Your task to perform on an android device: Show me the alarms in the clock app Image 0: 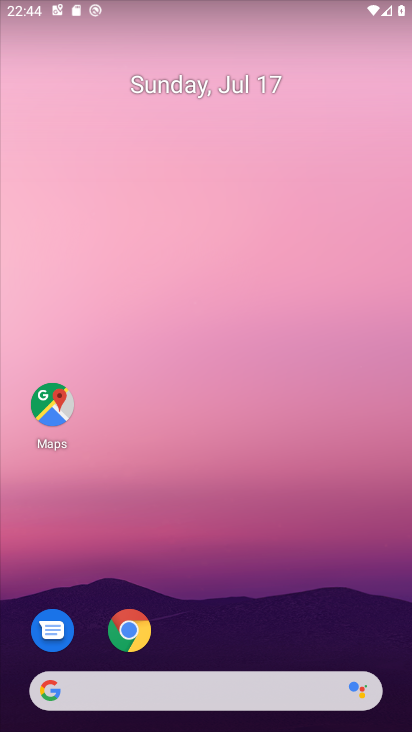
Step 0: drag from (207, 634) to (215, 89)
Your task to perform on an android device: Show me the alarms in the clock app Image 1: 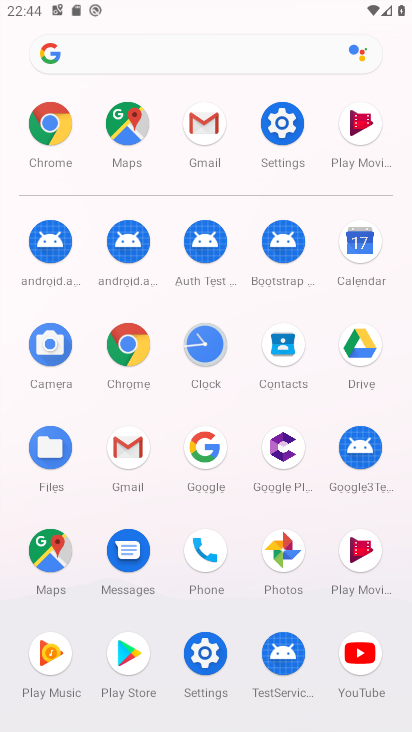
Step 1: click (207, 360)
Your task to perform on an android device: Show me the alarms in the clock app Image 2: 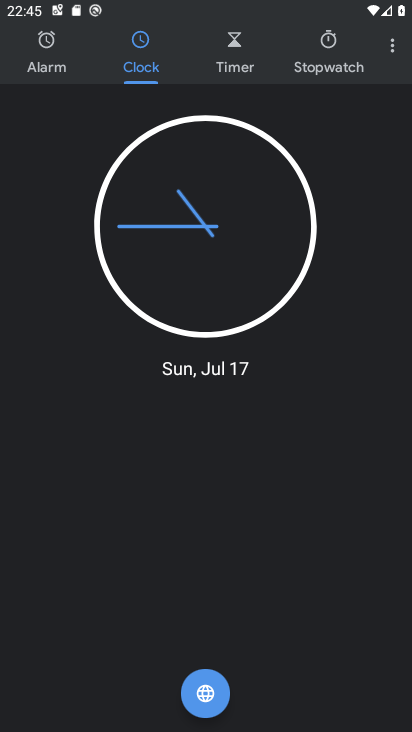
Step 2: click (41, 62)
Your task to perform on an android device: Show me the alarms in the clock app Image 3: 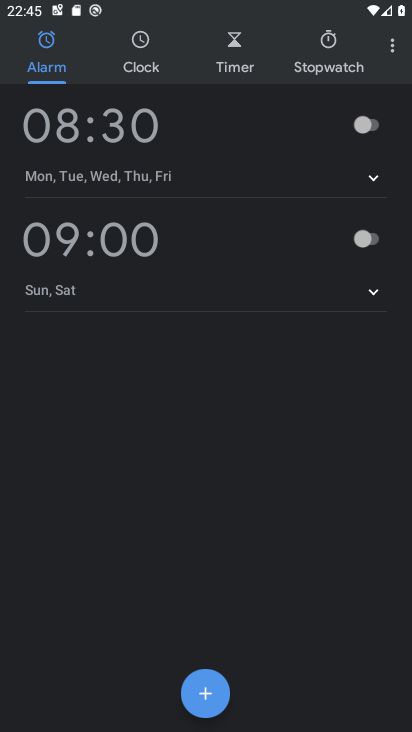
Step 3: task complete